Your task to perform on an android device: change the clock display to analog Image 0: 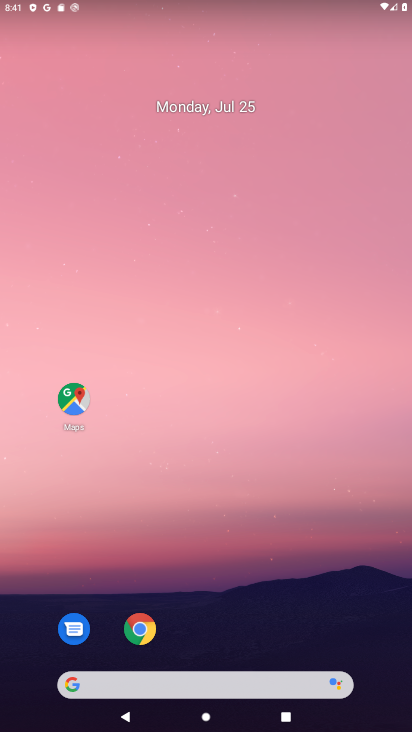
Step 0: drag from (194, 641) to (235, 143)
Your task to perform on an android device: change the clock display to analog Image 1: 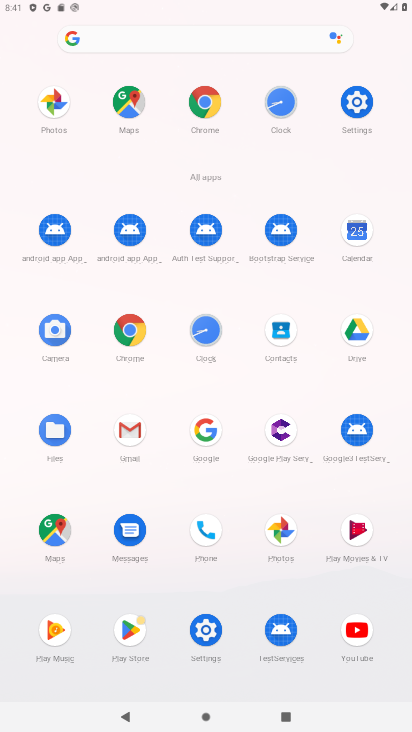
Step 1: click (296, 104)
Your task to perform on an android device: change the clock display to analog Image 2: 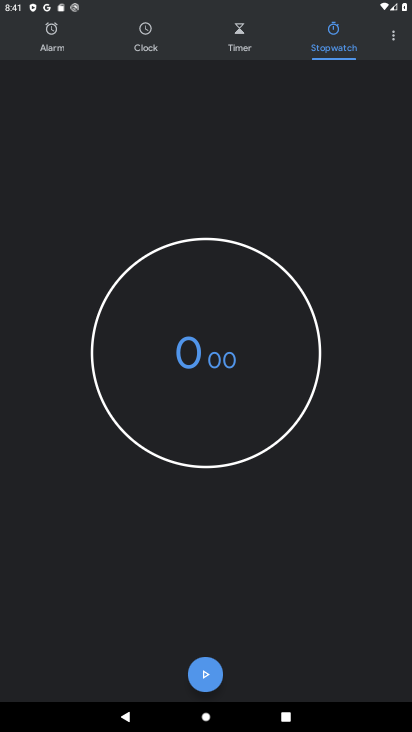
Step 2: click (397, 34)
Your task to perform on an android device: change the clock display to analog Image 3: 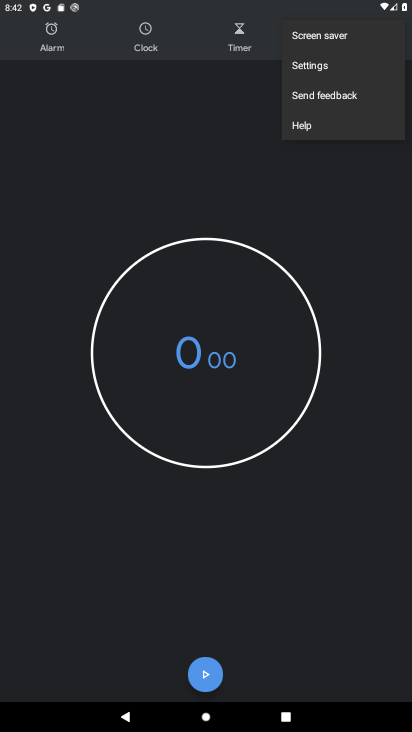
Step 3: click (351, 52)
Your task to perform on an android device: change the clock display to analog Image 4: 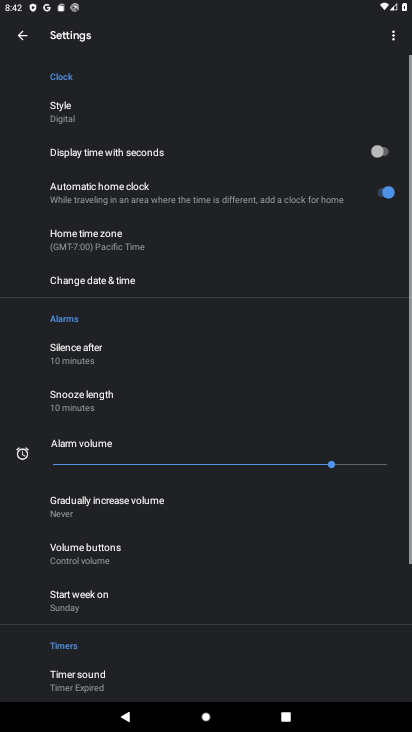
Step 4: click (331, 62)
Your task to perform on an android device: change the clock display to analog Image 5: 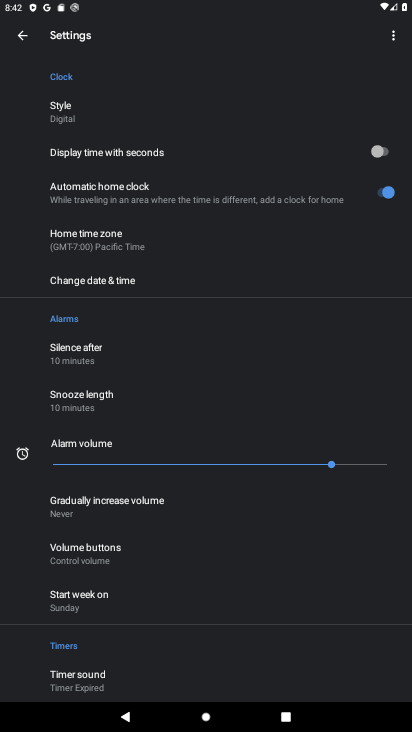
Step 5: click (118, 124)
Your task to perform on an android device: change the clock display to analog Image 6: 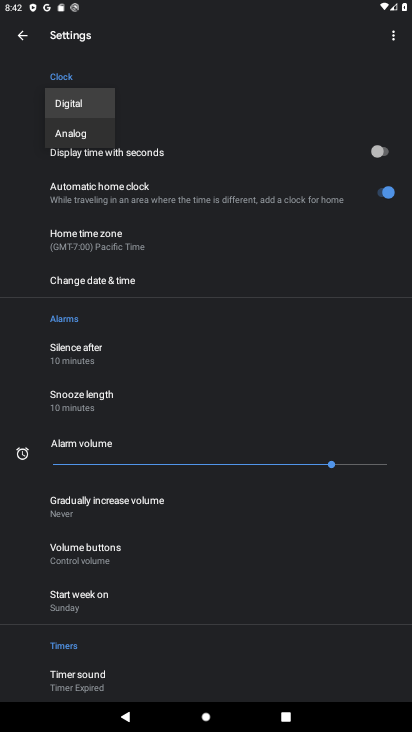
Step 6: click (91, 122)
Your task to perform on an android device: change the clock display to analog Image 7: 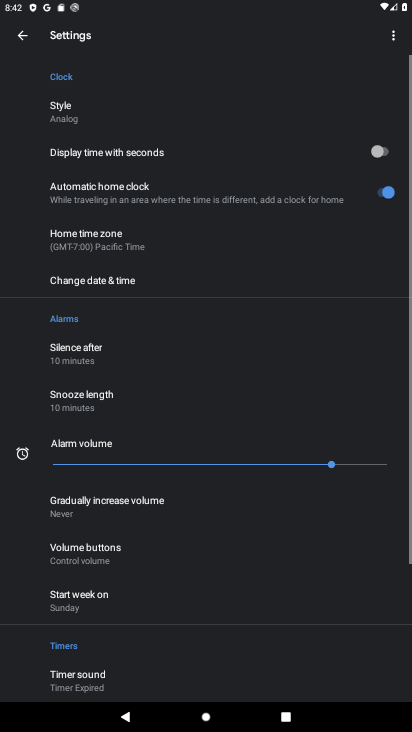
Step 7: click (94, 133)
Your task to perform on an android device: change the clock display to analog Image 8: 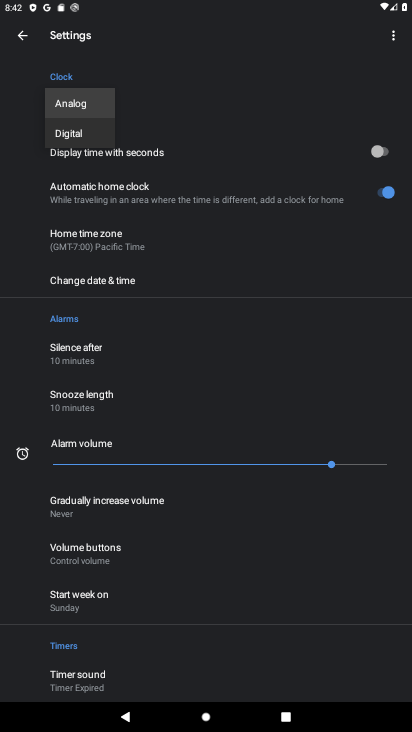
Step 8: task complete